Your task to perform on an android device: turn on priority inbox in the gmail app Image 0: 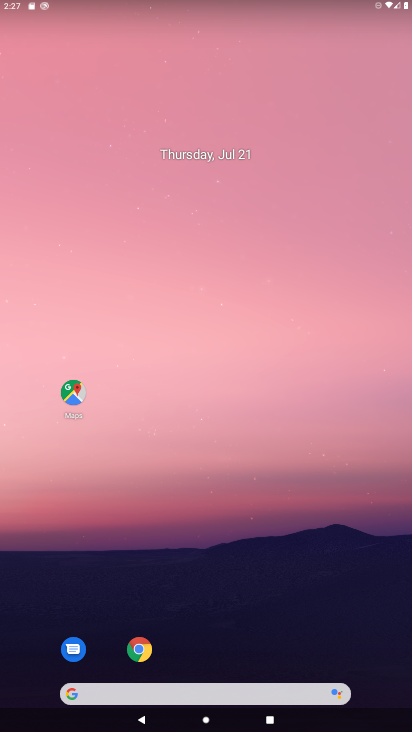
Step 0: drag from (246, 399) to (269, 25)
Your task to perform on an android device: turn on priority inbox in the gmail app Image 1: 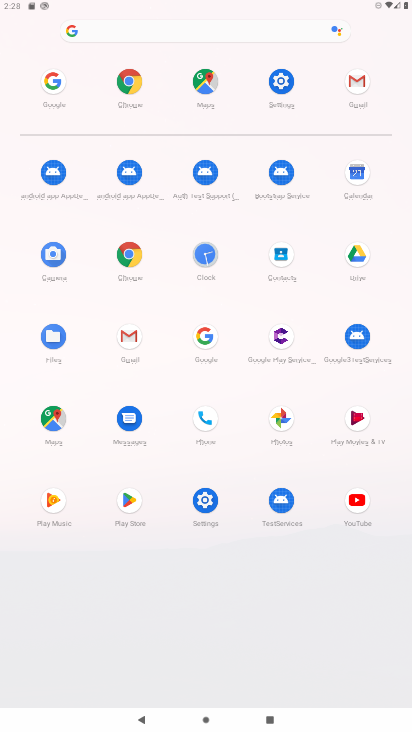
Step 1: click (358, 74)
Your task to perform on an android device: turn on priority inbox in the gmail app Image 2: 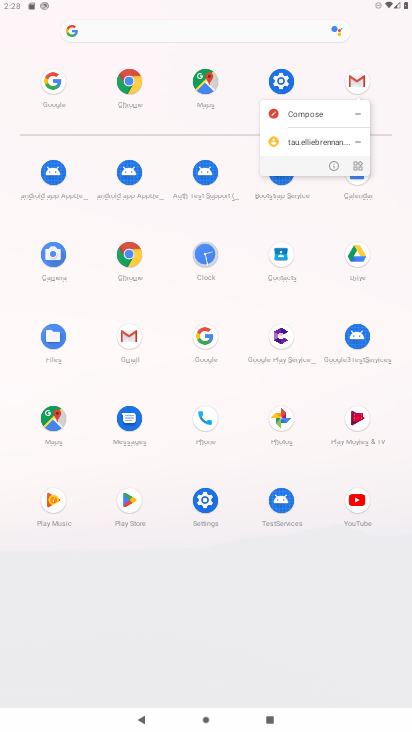
Step 2: click (353, 86)
Your task to perform on an android device: turn on priority inbox in the gmail app Image 3: 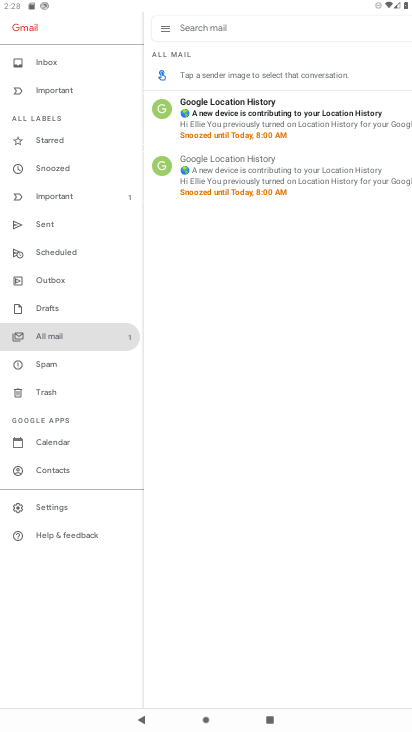
Step 3: click (52, 499)
Your task to perform on an android device: turn on priority inbox in the gmail app Image 4: 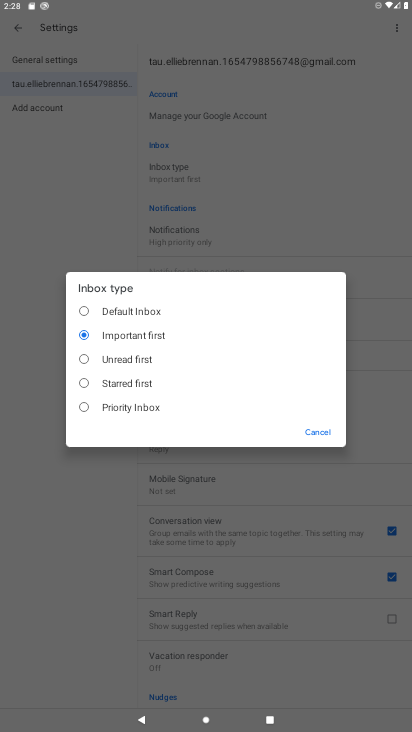
Step 4: click (318, 431)
Your task to perform on an android device: turn on priority inbox in the gmail app Image 5: 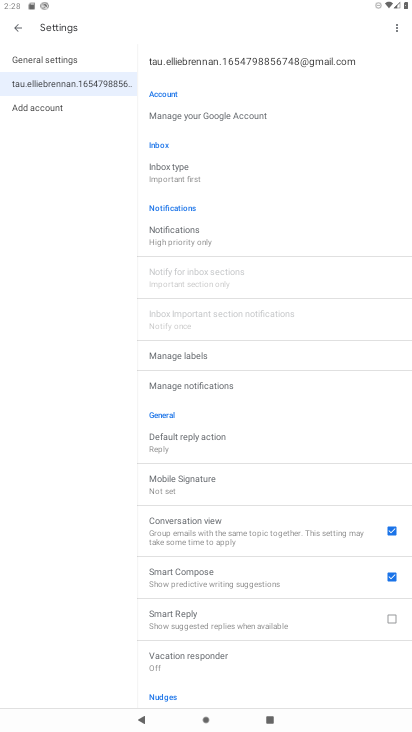
Step 5: click (180, 172)
Your task to perform on an android device: turn on priority inbox in the gmail app Image 6: 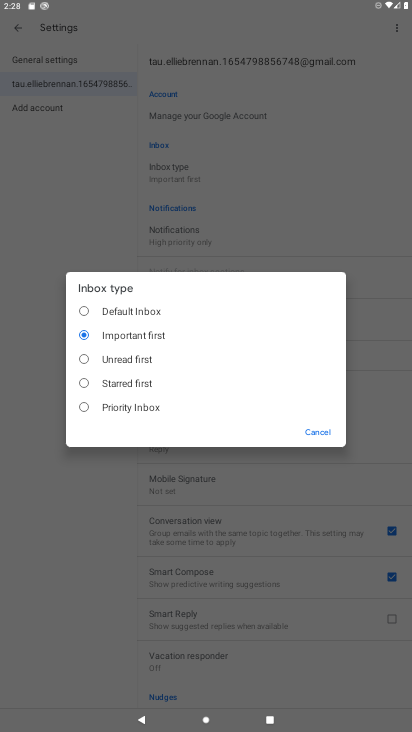
Step 6: click (103, 405)
Your task to perform on an android device: turn on priority inbox in the gmail app Image 7: 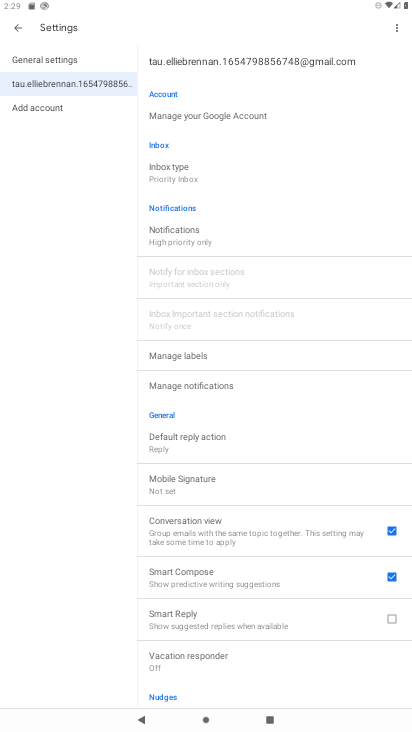
Step 7: task complete